Your task to perform on an android device: check google app version Image 0: 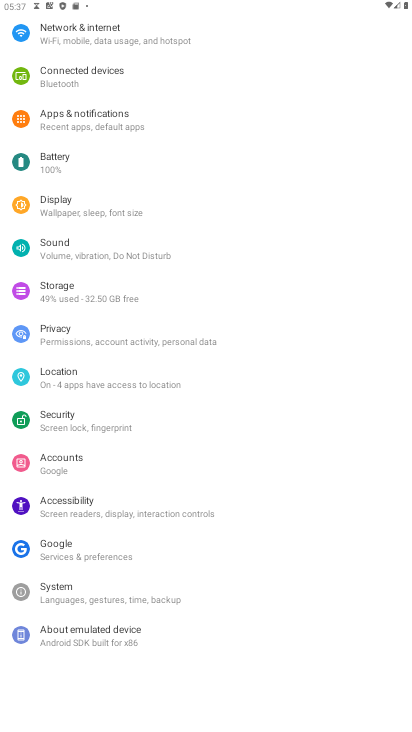
Step 0: press home button
Your task to perform on an android device: check google app version Image 1: 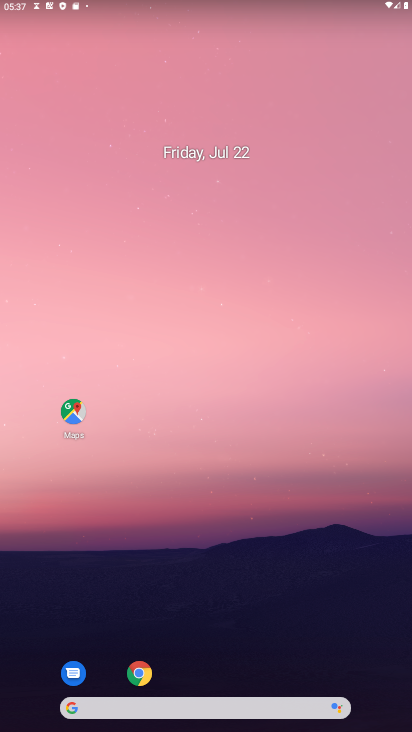
Step 1: click (219, 667)
Your task to perform on an android device: check google app version Image 2: 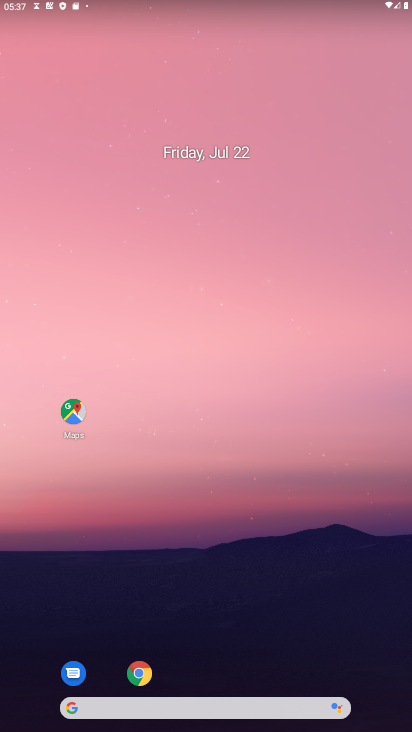
Step 2: click (71, 705)
Your task to perform on an android device: check google app version Image 3: 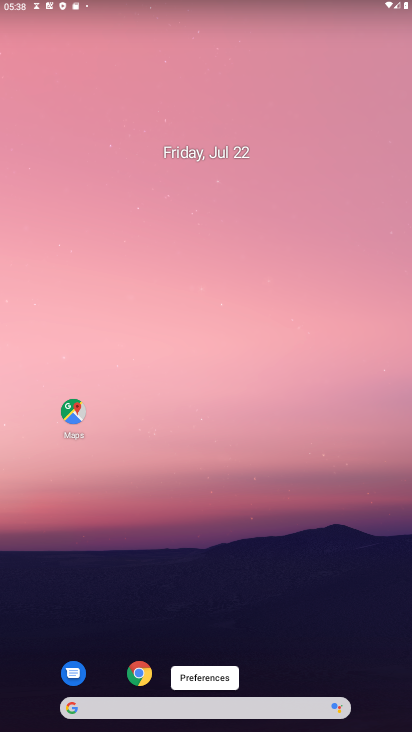
Step 3: drag from (300, 626) to (299, 242)
Your task to perform on an android device: check google app version Image 4: 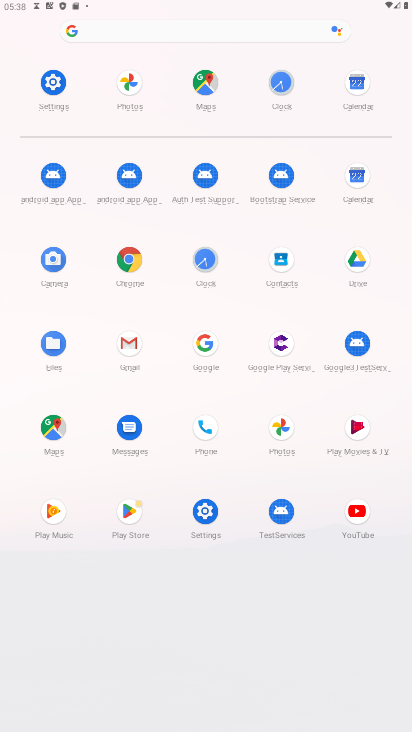
Step 4: click (214, 344)
Your task to perform on an android device: check google app version Image 5: 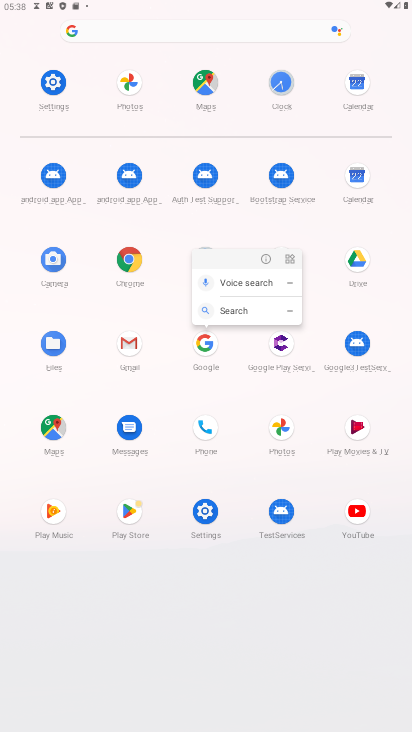
Step 5: click (272, 261)
Your task to perform on an android device: check google app version Image 6: 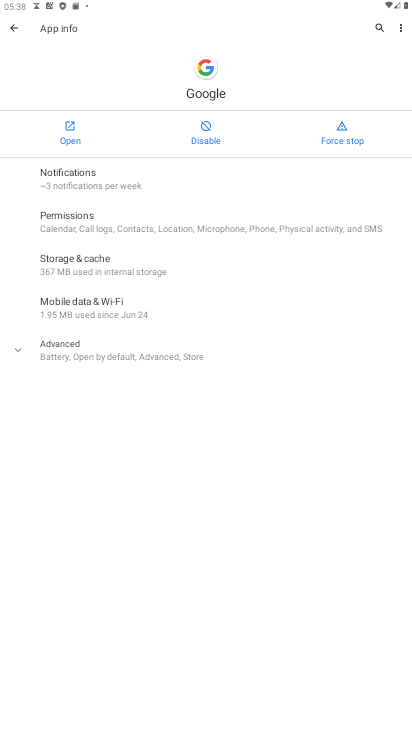
Step 6: click (66, 344)
Your task to perform on an android device: check google app version Image 7: 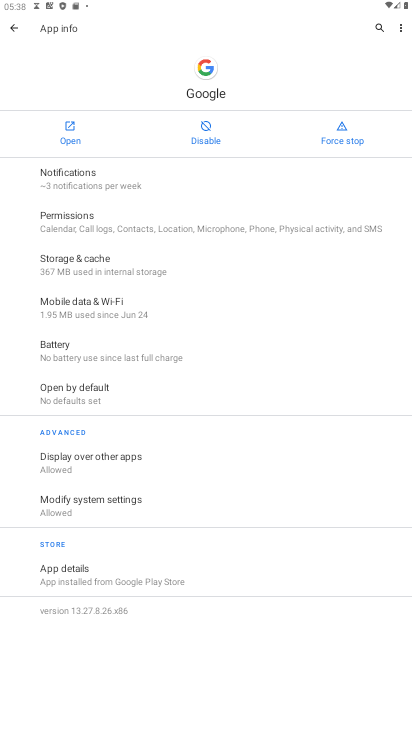
Step 7: task complete